Your task to perform on an android device: change the clock display to analog Image 0: 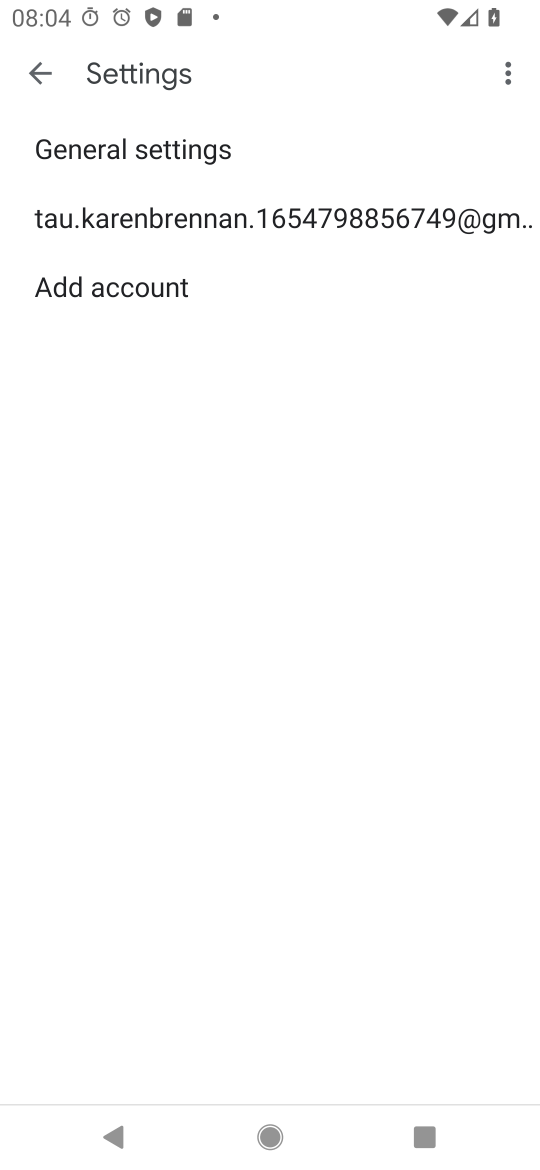
Step 0: press home button
Your task to perform on an android device: change the clock display to analog Image 1: 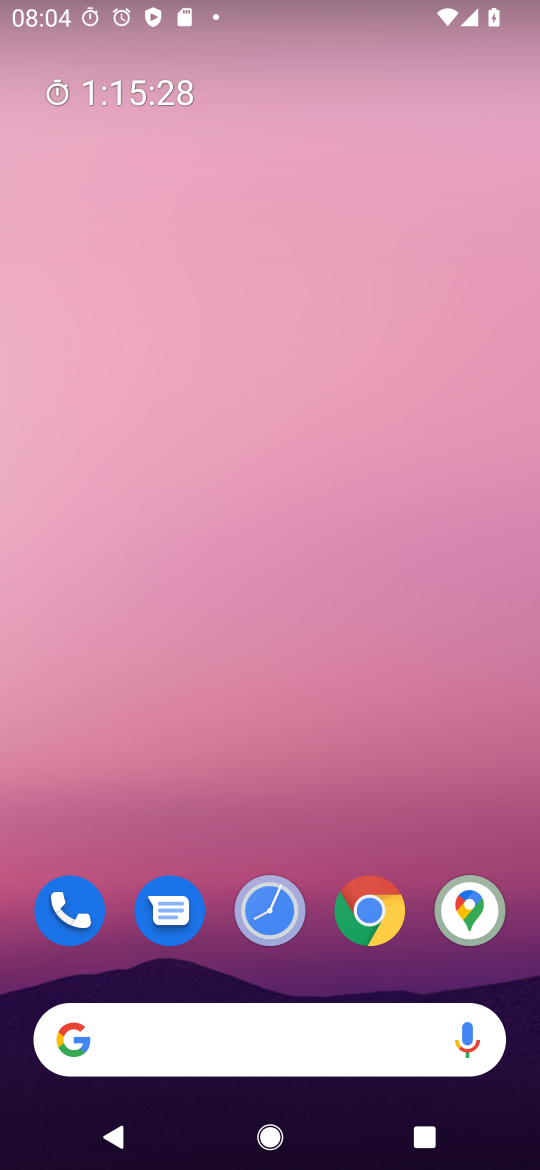
Step 1: drag from (268, 1034) to (242, 204)
Your task to perform on an android device: change the clock display to analog Image 2: 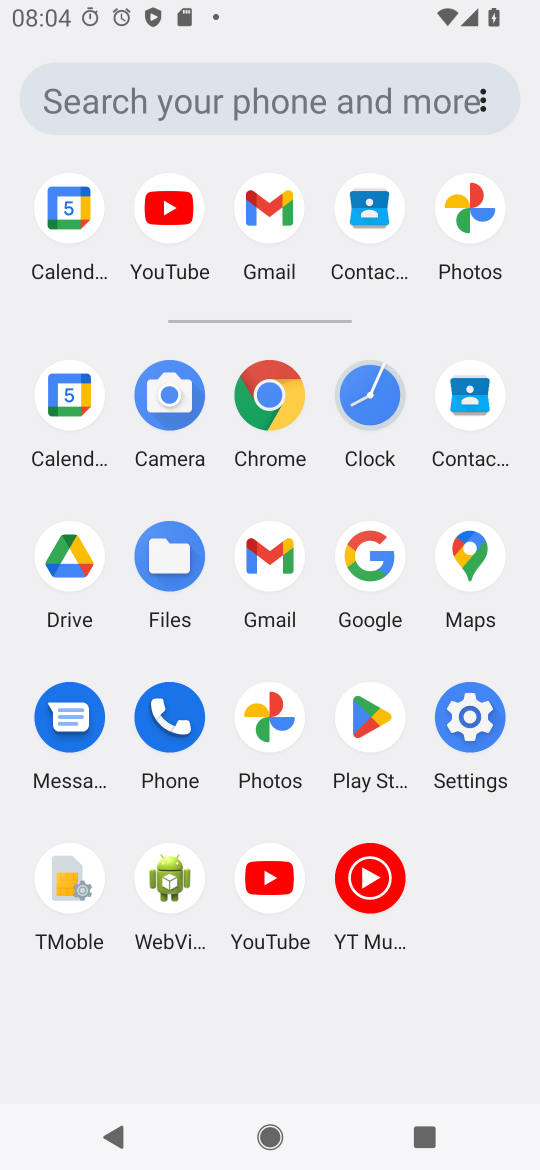
Step 2: click (347, 401)
Your task to perform on an android device: change the clock display to analog Image 3: 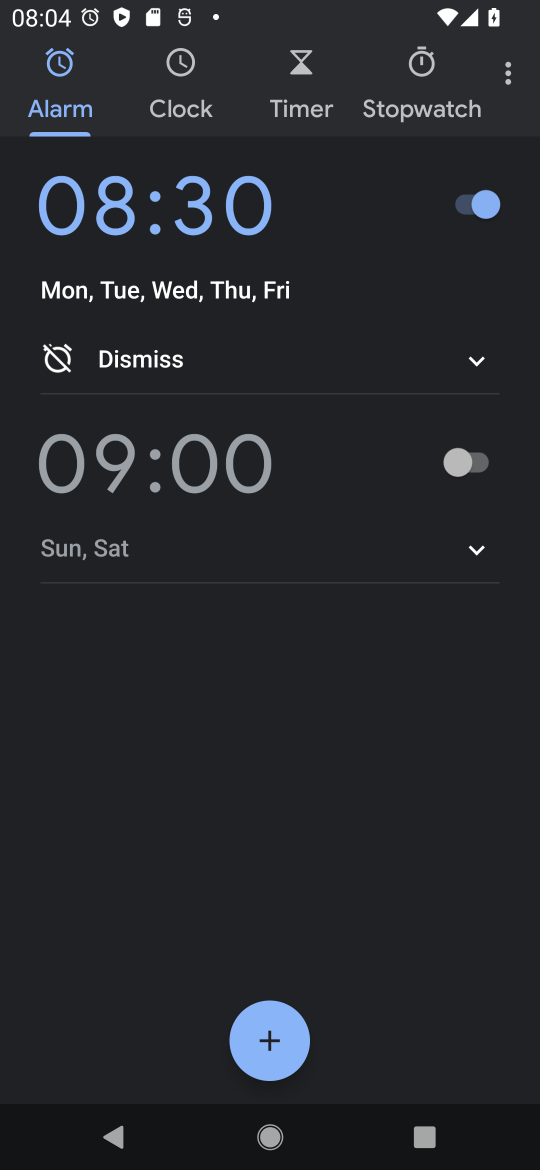
Step 3: click (517, 74)
Your task to perform on an android device: change the clock display to analog Image 4: 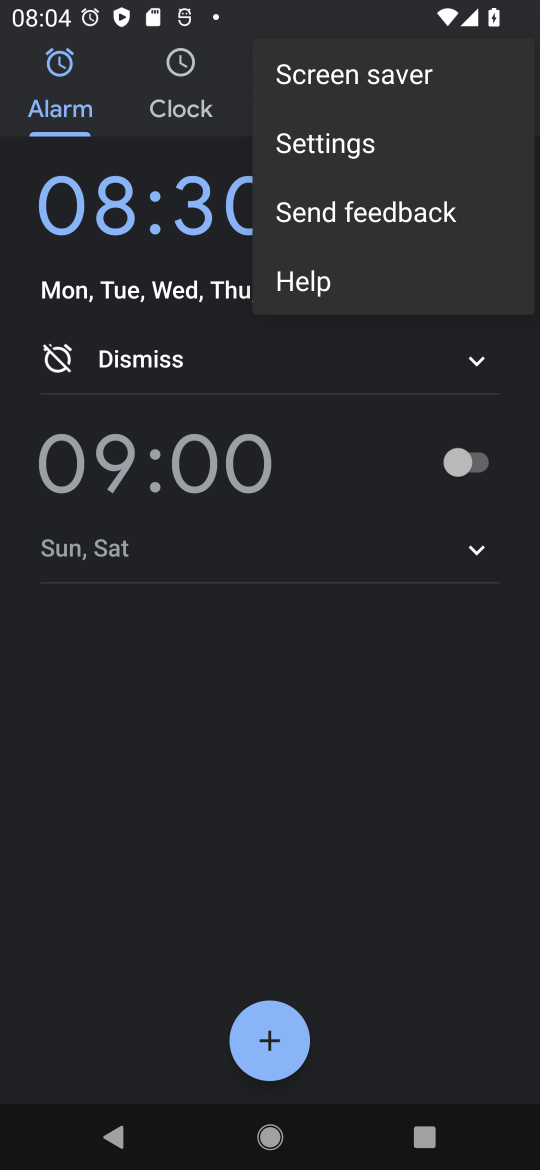
Step 4: click (364, 156)
Your task to perform on an android device: change the clock display to analog Image 5: 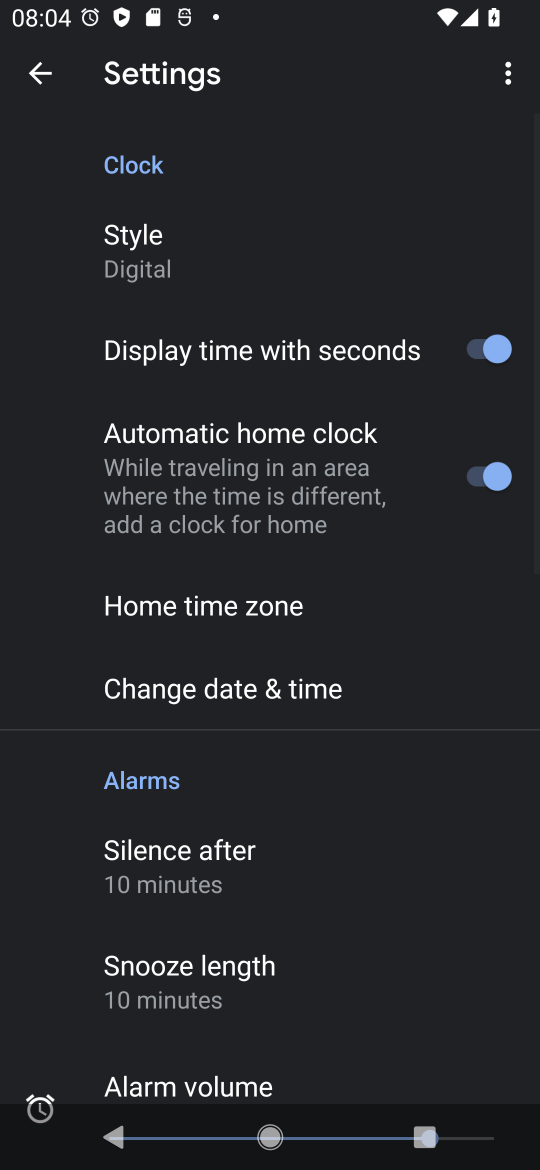
Step 5: click (193, 262)
Your task to perform on an android device: change the clock display to analog Image 6: 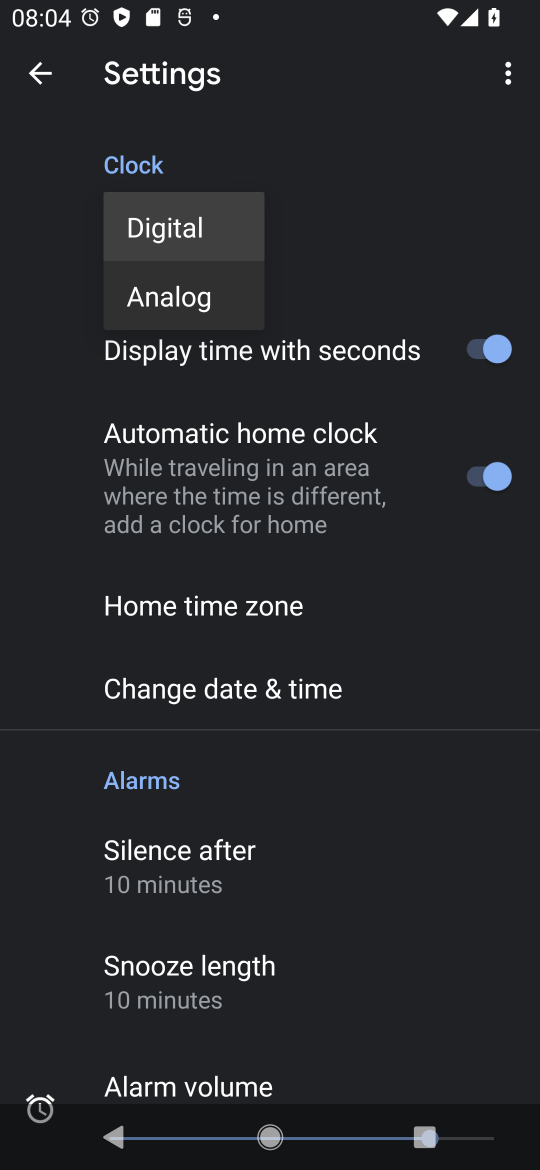
Step 6: click (167, 293)
Your task to perform on an android device: change the clock display to analog Image 7: 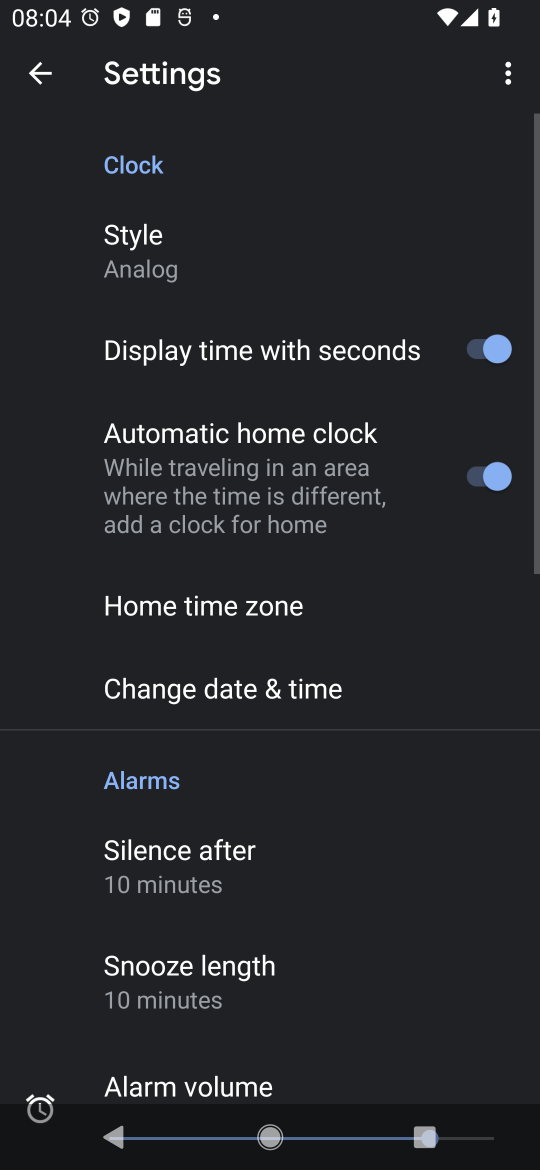
Step 7: task complete